Your task to perform on an android device: delete a single message in the gmail app Image 0: 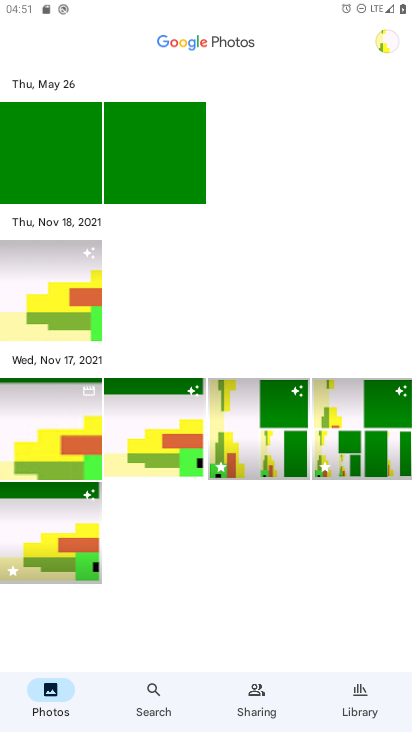
Step 0: press home button
Your task to perform on an android device: delete a single message in the gmail app Image 1: 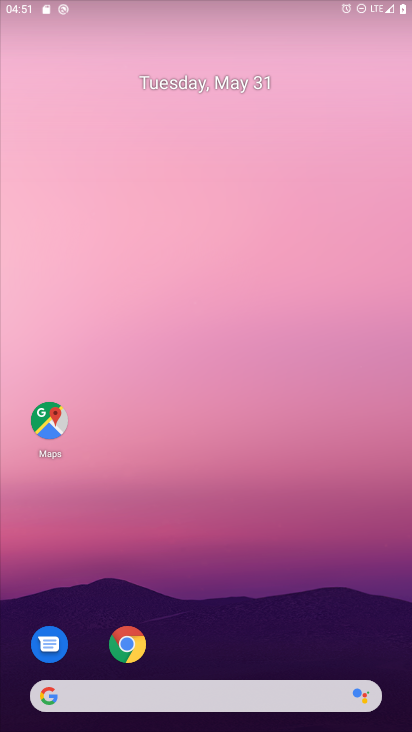
Step 1: drag from (205, 216) to (189, 110)
Your task to perform on an android device: delete a single message in the gmail app Image 2: 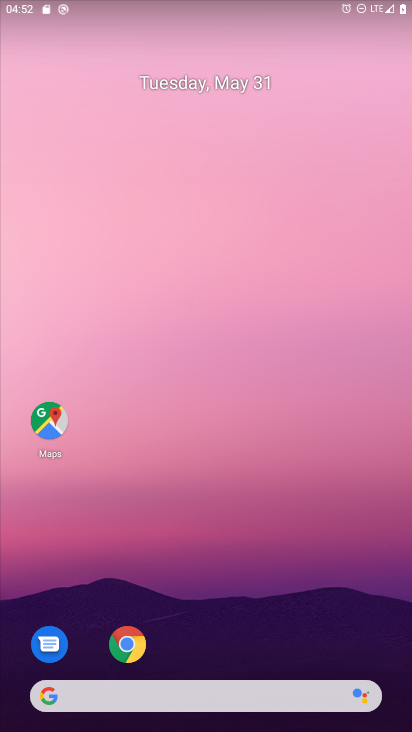
Step 2: drag from (175, 519) to (212, 143)
Your task to perform on an android device: delete a single message in the gmail app Image 3: 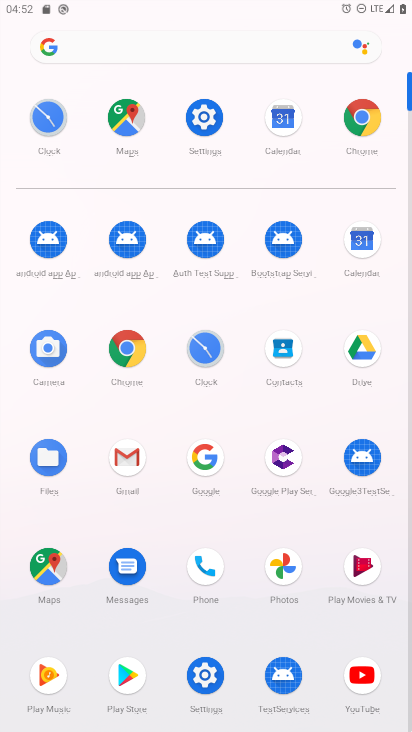
Step 3: click (123, 455)
Your task to perform on an android device: delete a single message in the gmail app Image 4: 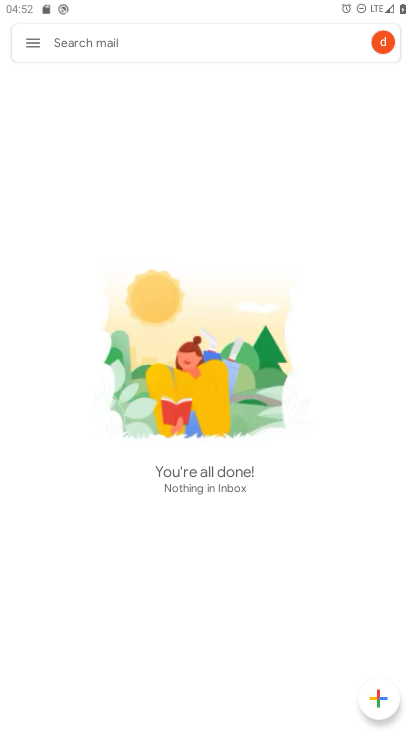
Step 4: click (30, 45)
Your task to perform on an android device: delete a single message in the gmail app Image 5: 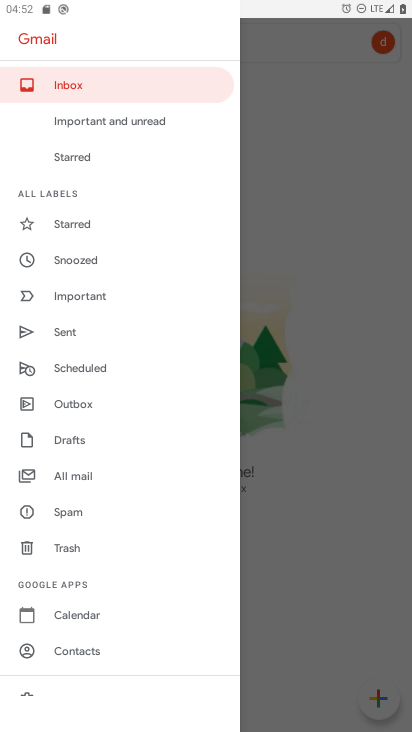
Step 5: drag from (115, 600) to (114, 172)
Your task to perform on an android device: delete a single message in the gmail app Image 6: 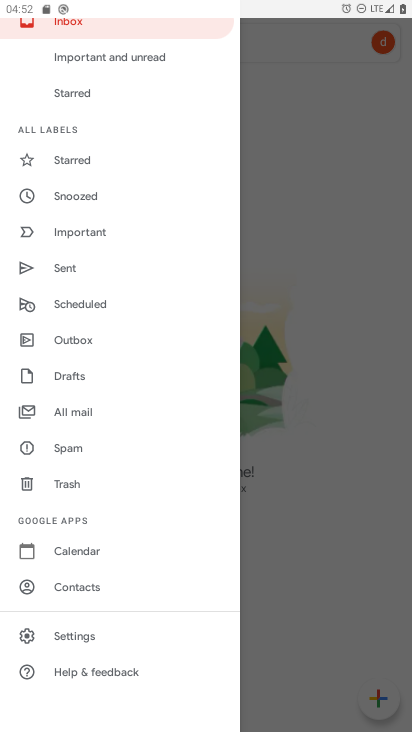
Step 6: click (76, 419)
Your task to perform on an android device: delete a single message in the gmail app Image 7: 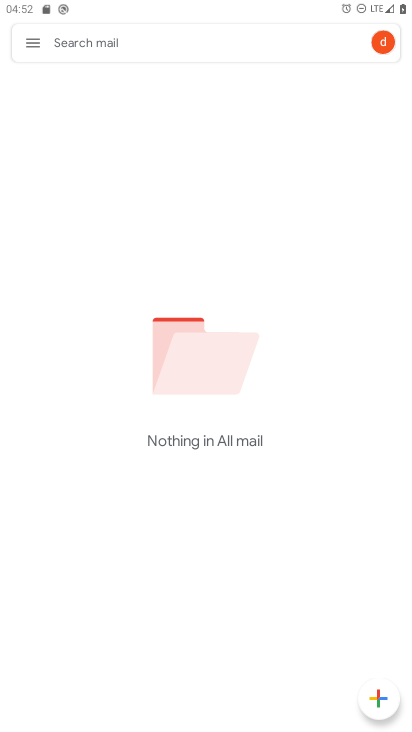
Step 7: task complete